Your task to perform on an android device: Search for sushi restaurants on Maps Image 0: 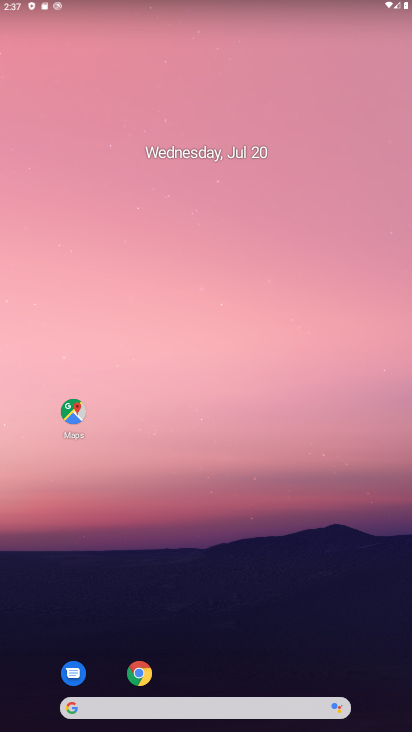
Step 0: click (80, 414)
Your task to perform on an android device: Search for sushi restaurants on Maps Image 1: 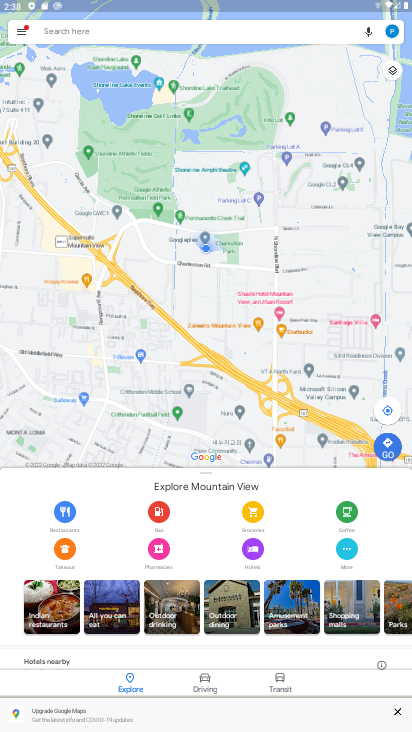
Step 1: click (182, 30)
Your task to perform on an android device: Search for sushi restaurants on Maps Image 2: 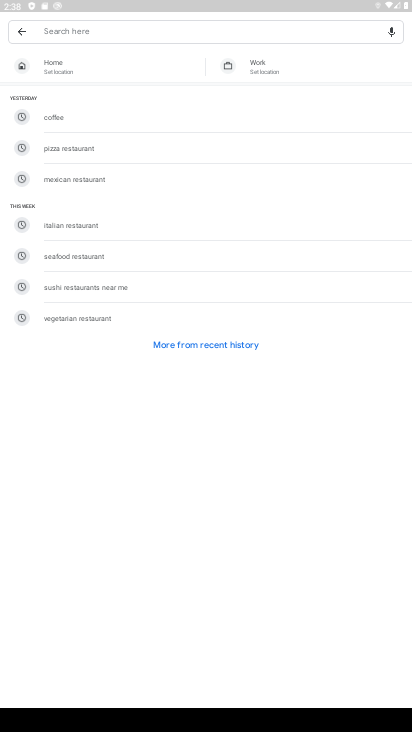
Step 2: click (112, 291)
Your task to perform on an android device: Search for sushi restaurants on Maps Image 3: 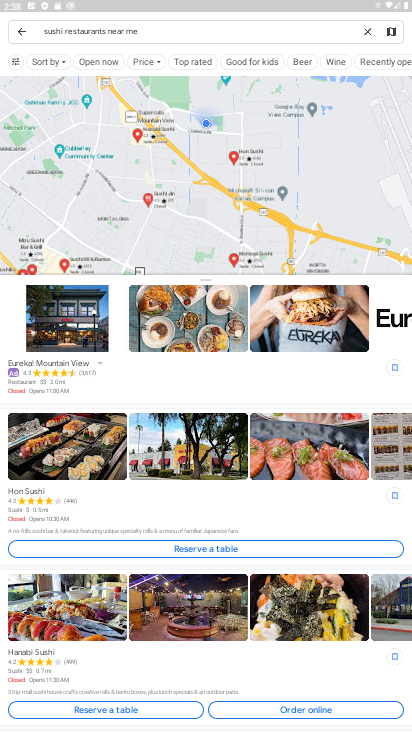
Step 3: task complete